Your task to perform on an android device: Open Google Chrome and click the shortcut for Amazon.com Image 0: 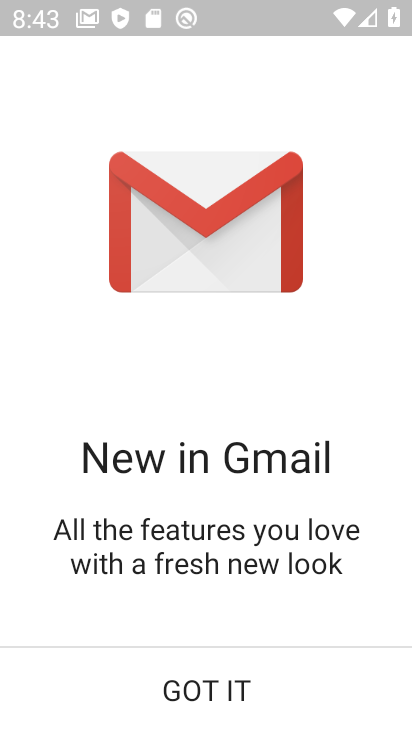
Step 0: press home button
Your task to perform on an android device: Open Google Chrome and click the shortcut for Amazon.com Image 1: 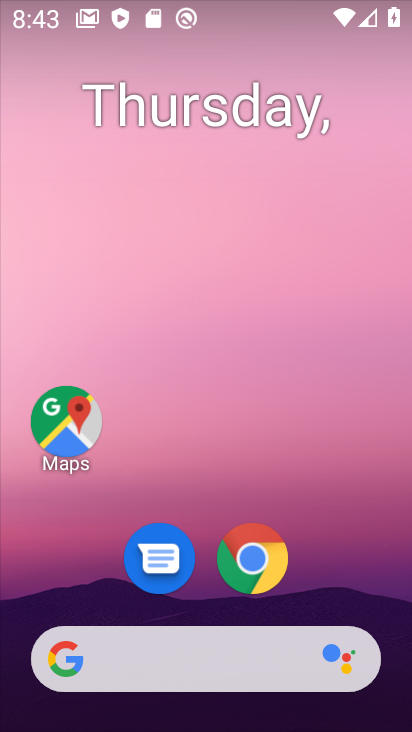
Step 1: click (255, 557)
Your task to perform on an android device: Open Google Chrome and click the shortcut for Amazon.com Image 2: 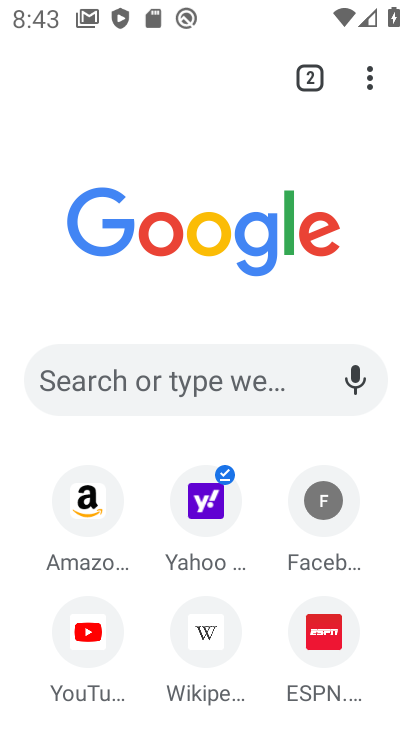
Step 2: click (84, 504)
Your task to perform on an android device: Open Google Chrome and click the shortcut for Amazon.com Image 3: 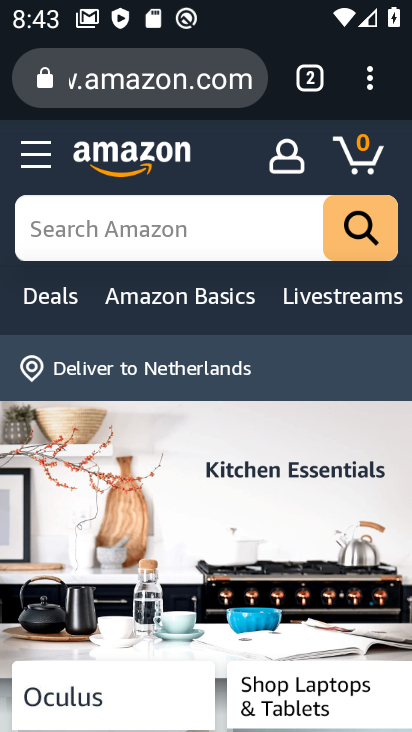
Step 3: task complete